Your task to perform on an android device: Open the phone app and click the voicemail tab. Image 0: 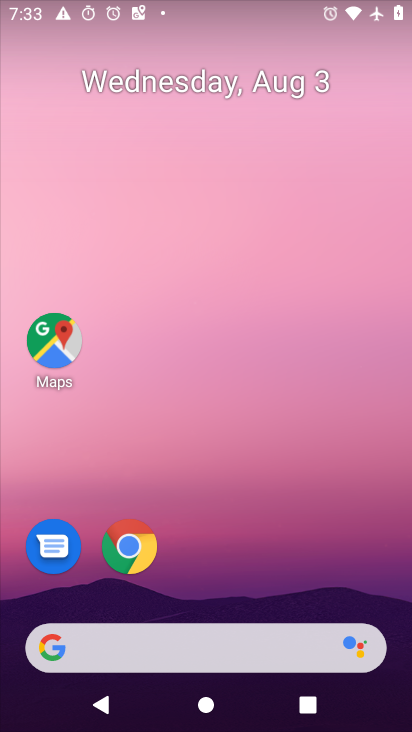
Step 0: press home button
Your task to perform on an android device: Open the phone app and click the voicemail tab. Image 1: 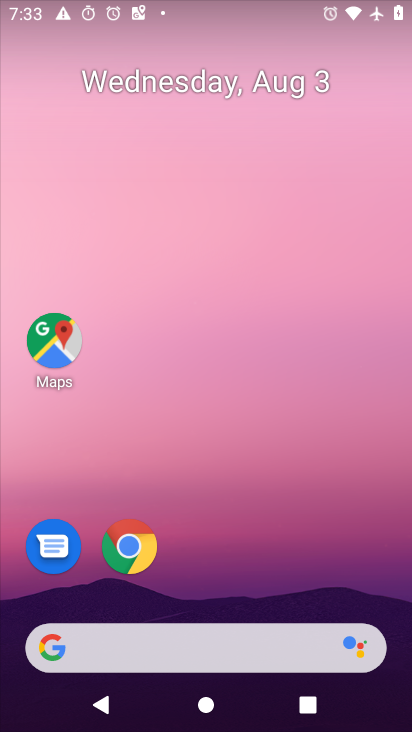
Step 1: drag from (226, 477) to (242, 55)
Your task to perform on an android device: Open the phone app and click the voicemail tab. Image 2: 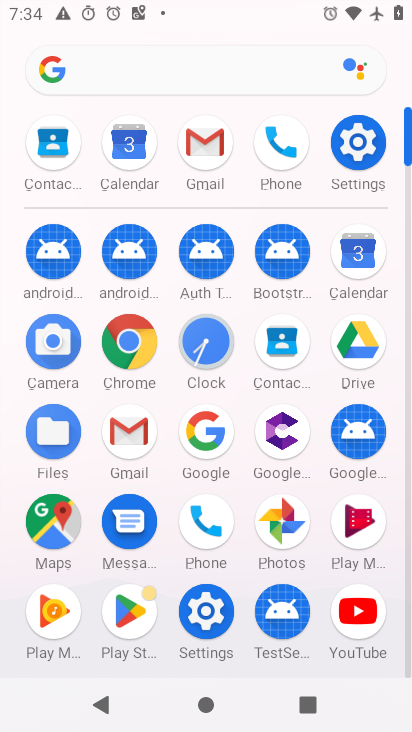
Step 2: click (199, 519)
Your task to perform on an android device: Open the phone app and click the voicemail tab. Image 3: 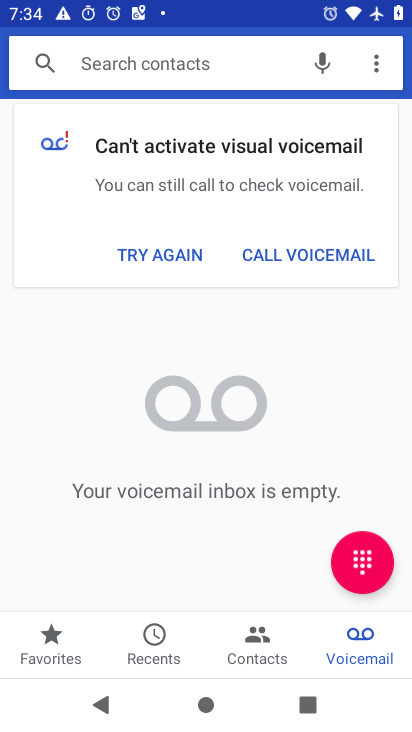
Step 3: click (358, 641)
Your task to perform on an android device: Open the phone app and click the voicemail tab. Image 4: 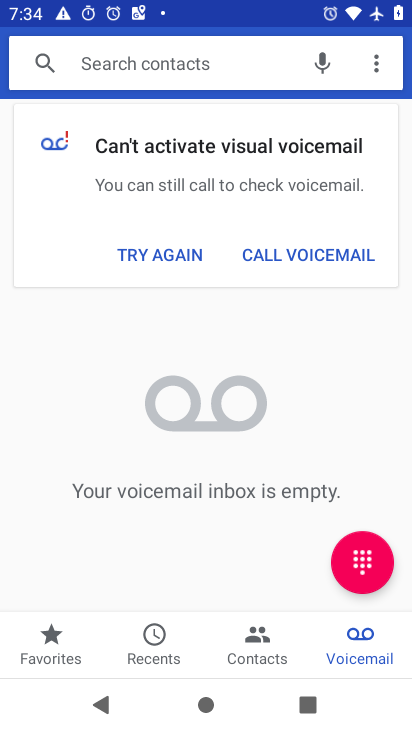
Step 4: task complete